Your task to perform on an android device: toggle show notifications on the lock screen Image 0: 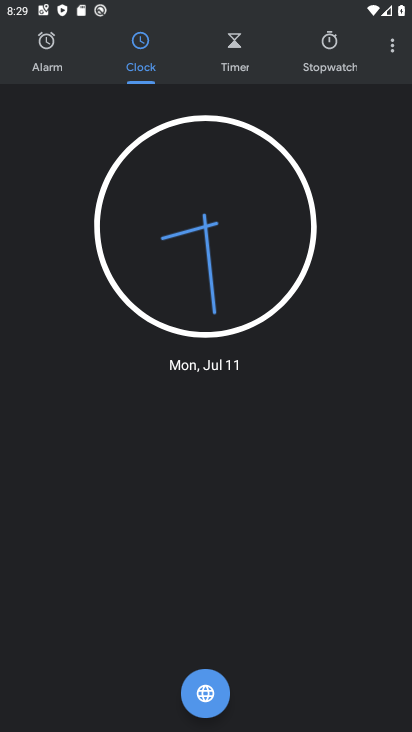
Step 0: press home button
Your task to perform on an android device: toggle show notifications on the lock screen Image 1: 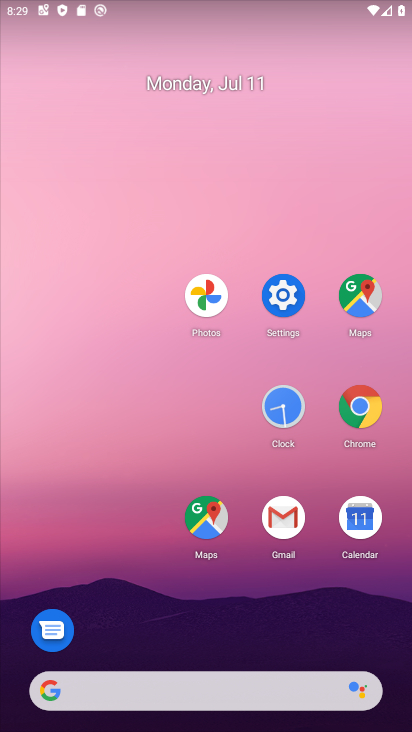
Step 1: click (280, 286)
Your task to perform on an android device: toggle show notifications on the lock screen Image 2: 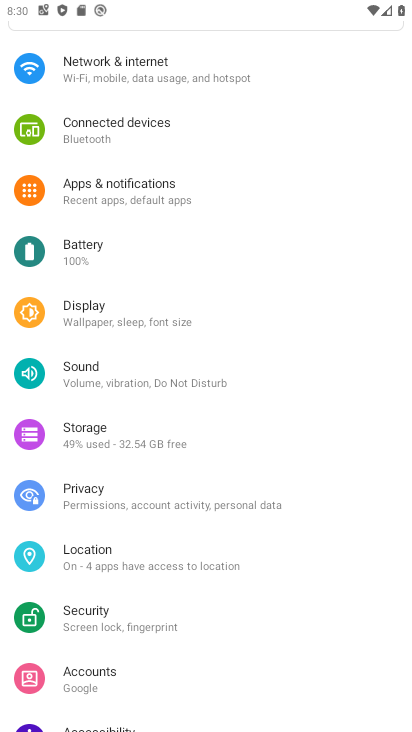
Step 2: drag from (176, 630) to (258, 263)
Your task to perform on an android device: toggle show notifications on the lock screen Image 3: 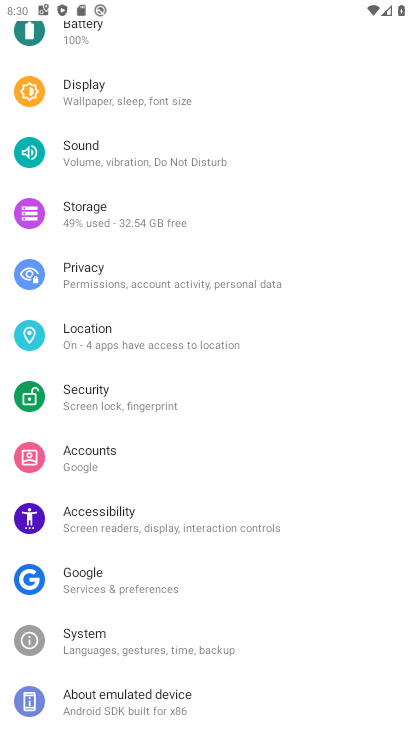
Step 3: drag from (217, 178) to (215, 637)
Your task to perform on an android device: toggle show notifications on the lock screen Image 4: 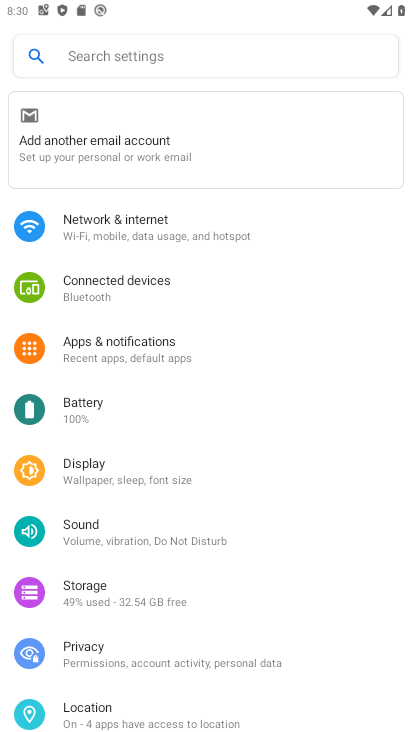
Step 4: click (164, 354)
Your task to perform on an android device: toggle show notifications on the lock screen Image 5: 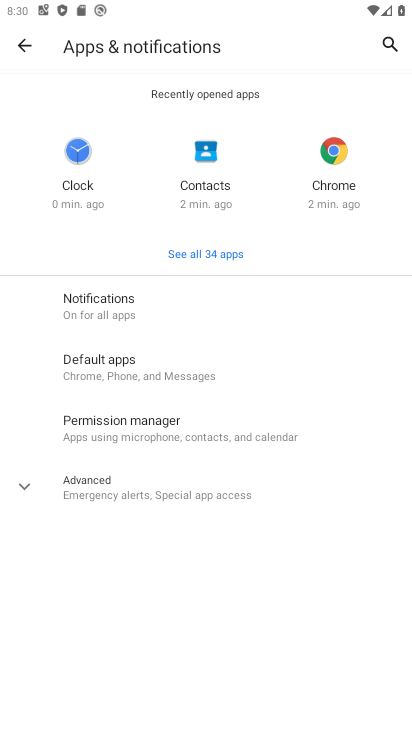
Step 5: click (146, 302)
Your task to perform on an android device: toggle show notifications on the lock screen Image 6: 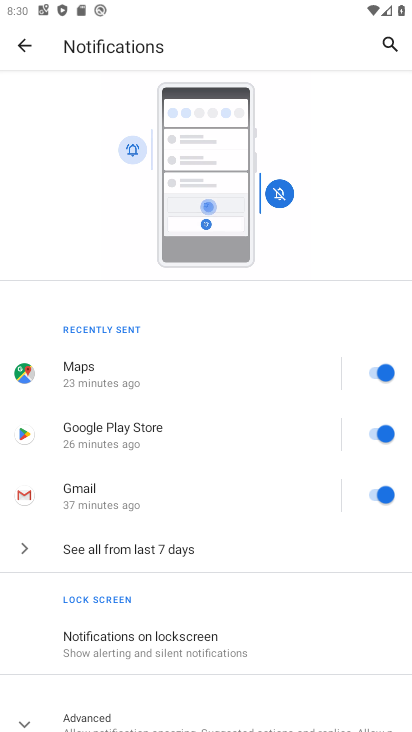
Step 6: click (189, 646)
Your task to perform on an android device: toggle show notifications on the lock screen Image 7: 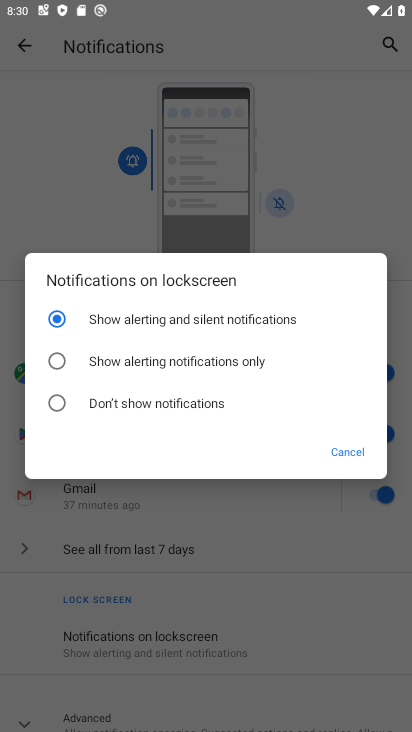
Step 7: click (213, 367)
Your task to perform on an android device: toggle show notifications on the lock screen Image 8: 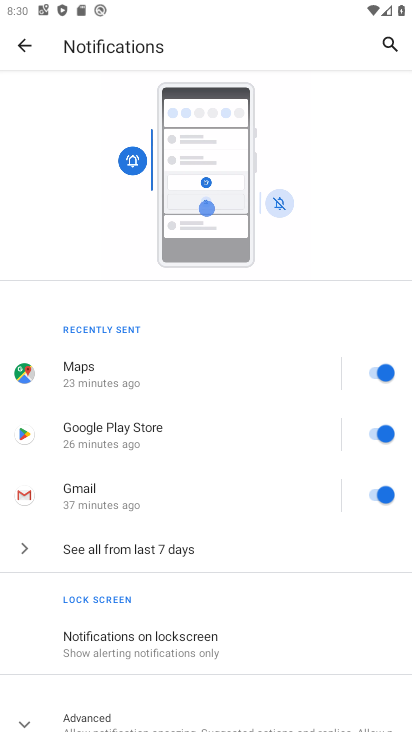
Step 8: task complete